Your task to perform on an android device: open a new tab in the chrome app Image 0: 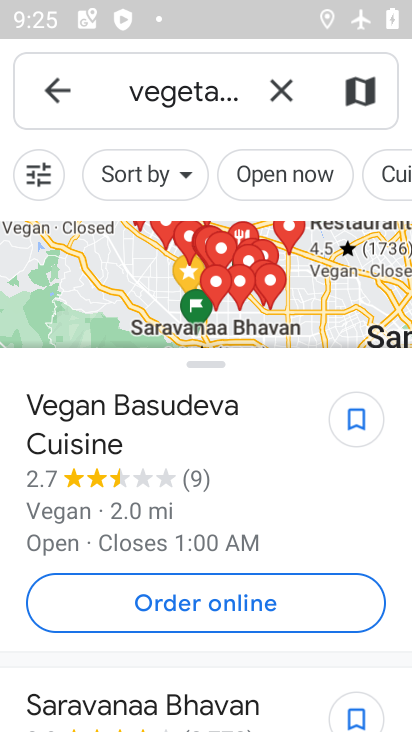
Step 0: press home button
Your task to perform on an android device: open a new tab in the chrome app Image 1: 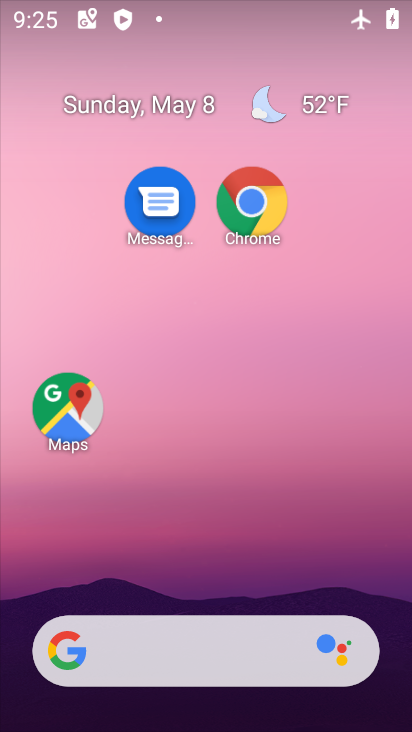
Step 1: click (258, 210)
Your task to perform on an android device: open a new tab in the chrome app Image 2: 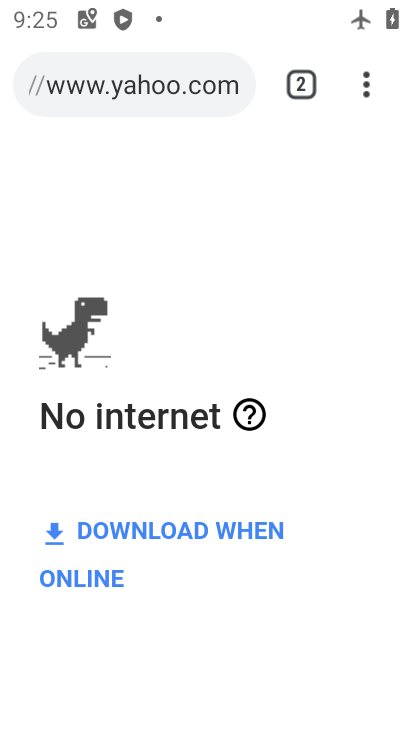
Step 2: click (309, 93)
Your task to perform on an android device: open a new tab in the chrome app Image 3: 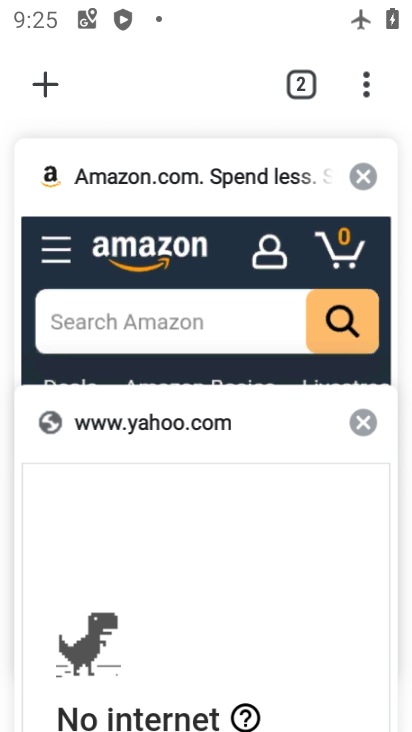
Step 3: click (34, 80)
Your task to perform on an android device: open a new tab in the chrome app Image 4: 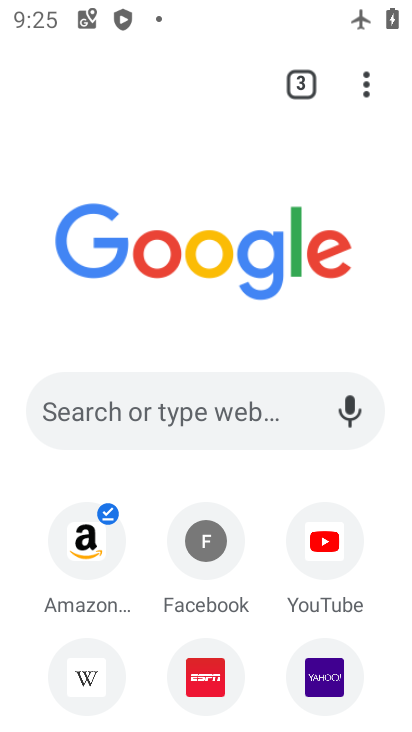
Step 4: task complete